Your task to perform on an android device: turn off sleep mode Image 0: 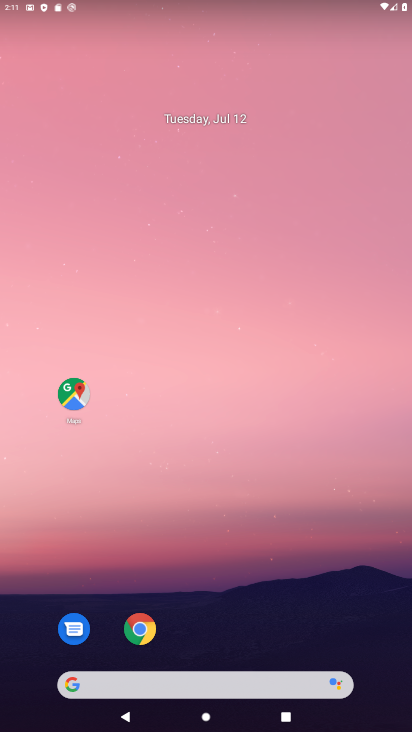
Step 0: drag from (178, 681) to (131, 140)
Your task to perform on an android device: turn off sleep mode Image 1: 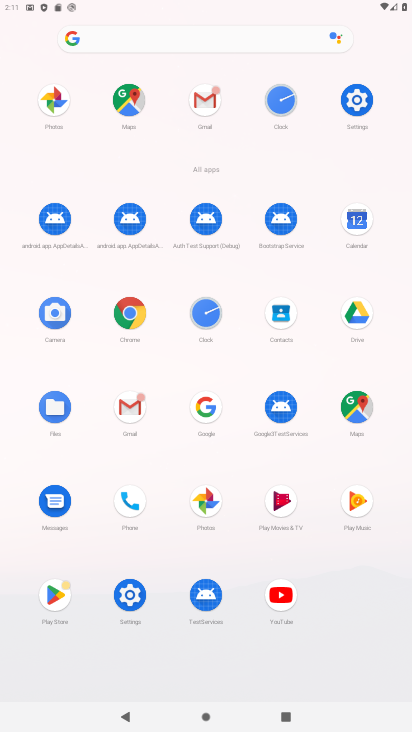
Step 1: click (358, 102)
Your task to perform on an android device: turn off sleep mode Image 2: 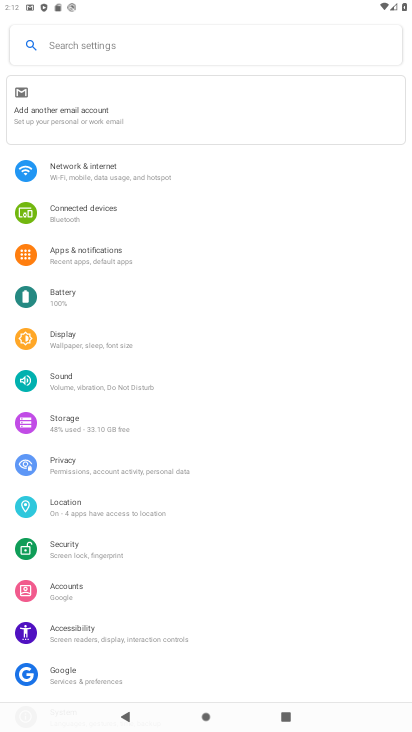
Step 2: click (109, 338)
Your task to perform on an android device: turn off sleep mode Image 3: 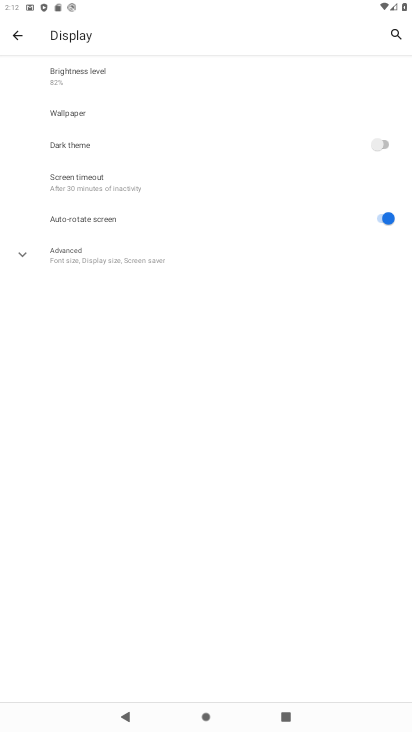
Step 3: click (104, 190)
Your task to perform on an android device: turn off sleep mode Image 4: 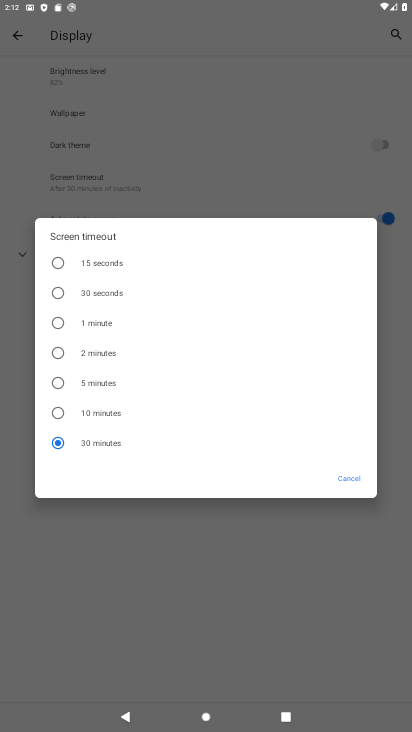
Step 4: click (357, 477)
Your task to perform on an android device: turn off sleep mode Image 5: 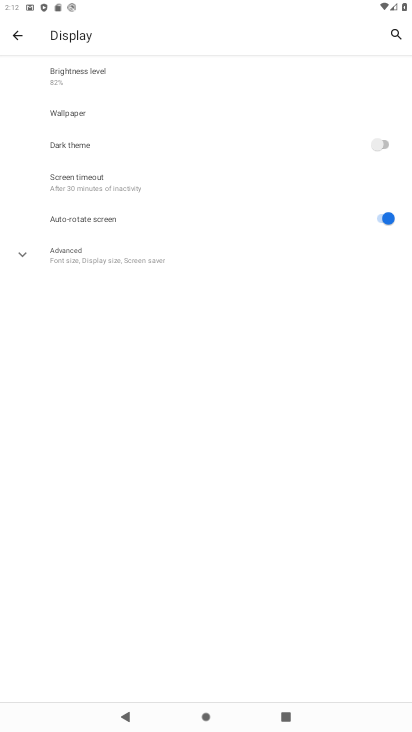
Step 5: click (82, 257)
Your task to perform on an android device: turn off sleep mode Image 6: 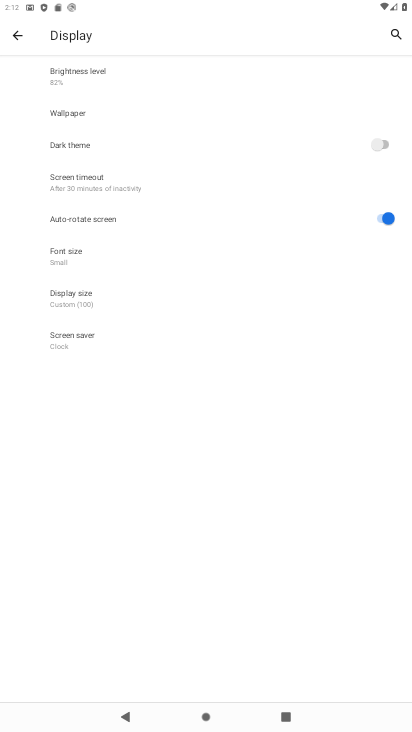
Step 6: click (93, 327)
Your task to perform on an android device: turn off sleep mode Image 7: 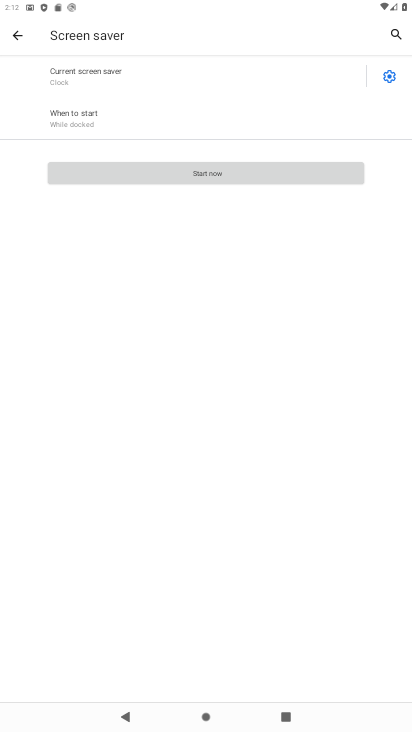
Step 7: task complete